Your task to perform on an android device: change the clock display to show seconds Image 0: 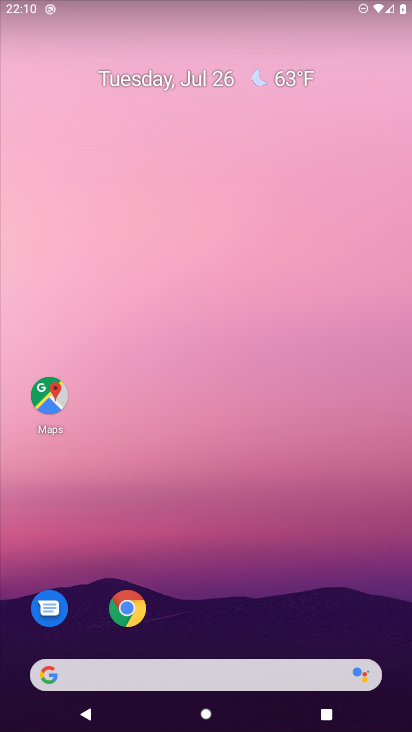
Step 0: drag from (30, 698) to (339, 86)
Your task to perform on an android device: change the clock display to show seconds Image 1: 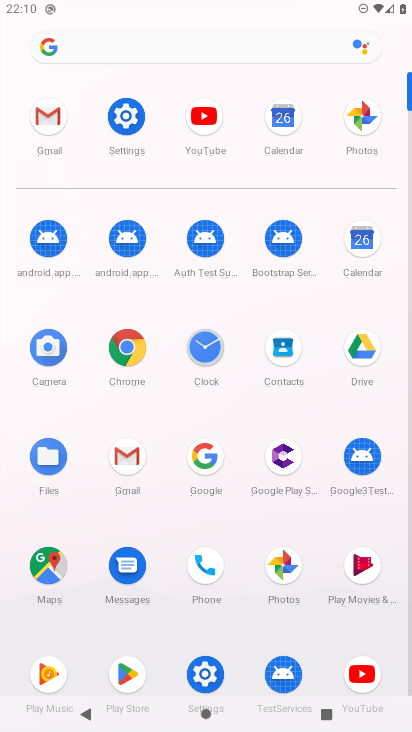
Step 1: click (209, 354)
Your task to perform on an android device: change the clock display to show seconds Image 2: 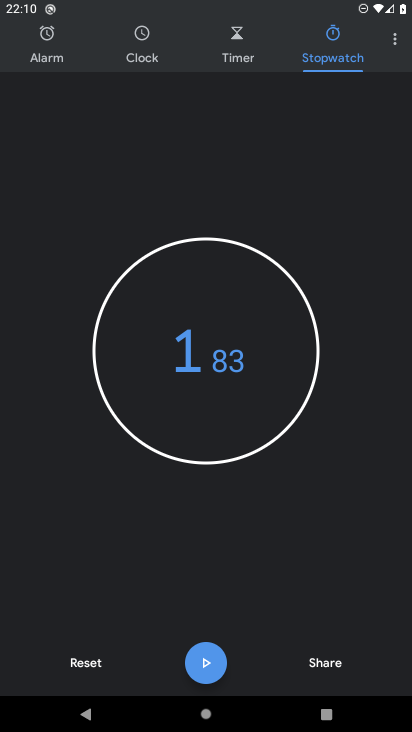
Step 2: click (156, 51)
Your task to perform on an android device: change the clock display to show seconds Image 3: 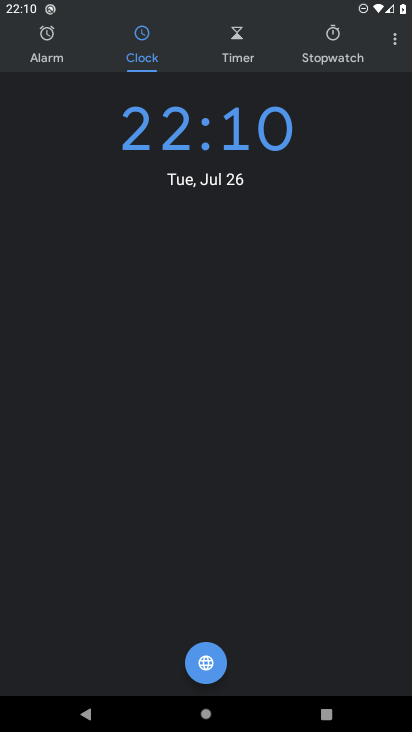
Step 3: click (392, 38)
Your task to perform on an android device: change the clock display to show seconds Image 4: 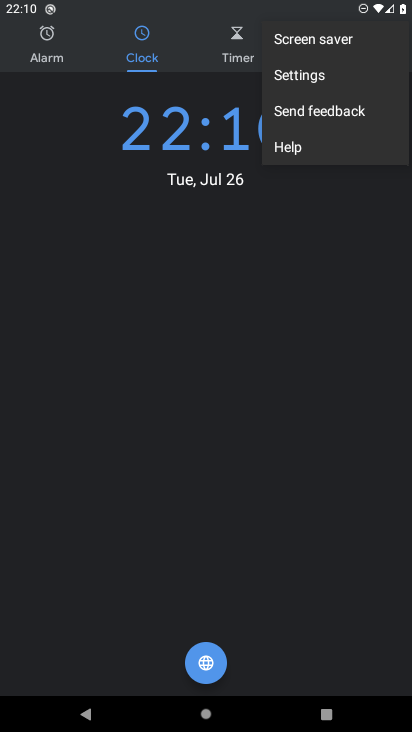
Step 4: click (328, 72)
Your task to perform on an android device: change the clock display to show seconds Image 5: 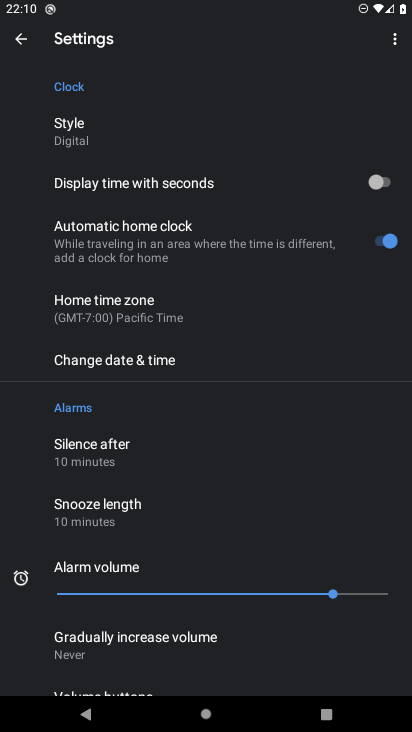
Step 5: click (375, 174)
Your task to perform on an android device: change the clock display to show seconds Image 6: 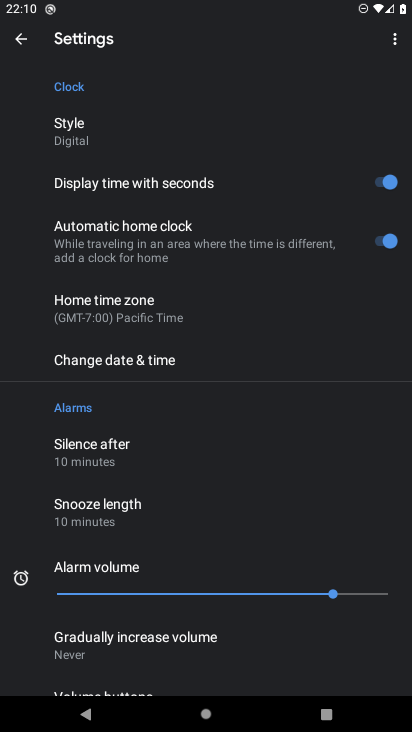
Step 6: task complete